Your task to perform on an android device: read, delete, or share a saved page in the chrome app Image 0: 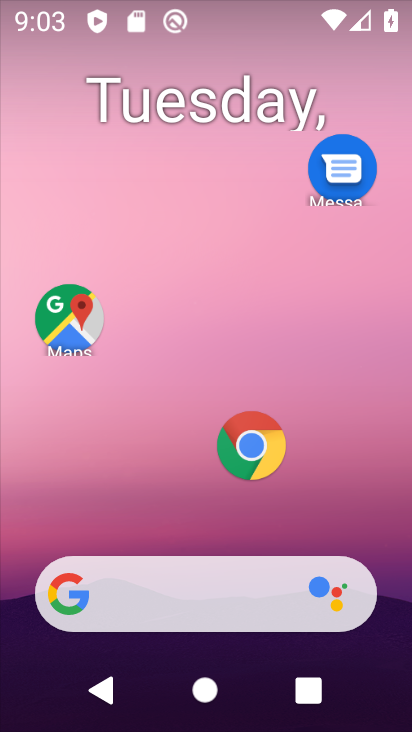
Step 0: click (275, 442)
Your task to perform on an android device: read, delete, or share a saved page in the chrome app Image 1: 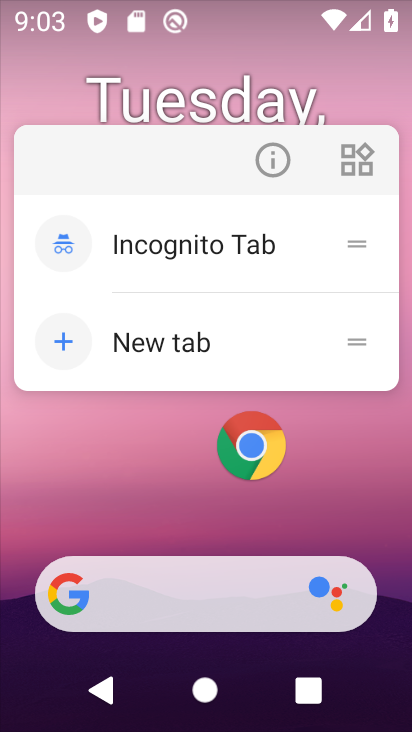
Step 1: click (257, 447)
Your task to perform on an android device: read, delete, or share a saved page in the chrome app Image 2: 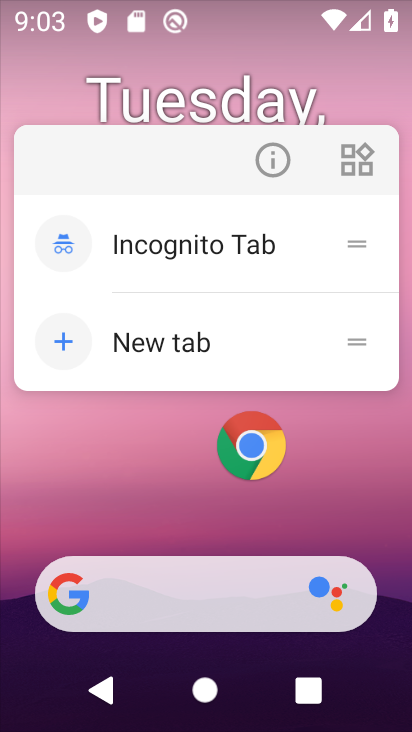
Step 2: click (257, 447)
Your task to perform on an android device: read, delete, or share a saved page in the chrome app Image 3: 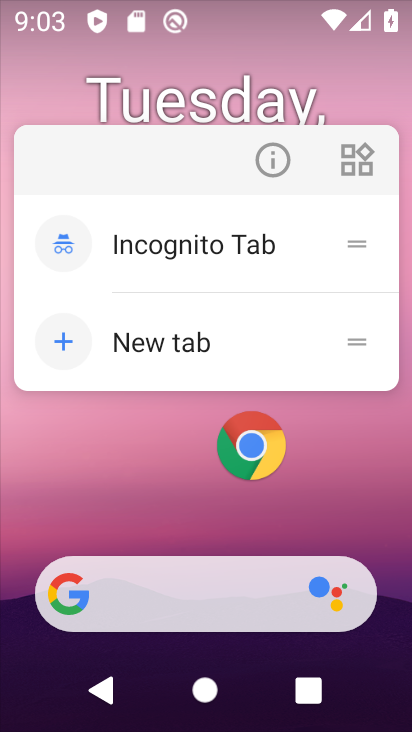
Step 3: click (256, 442)
Your task to perform on an android device: read, delete, or share a saved page in the chrome app Image 4: 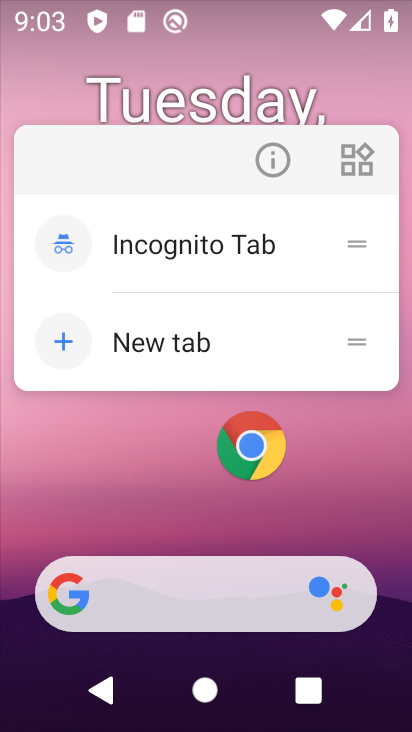
Step 4: click (256, 442)
Your task to perform on an android device: read, delete, or share a saved page in the chrome app Image 5: 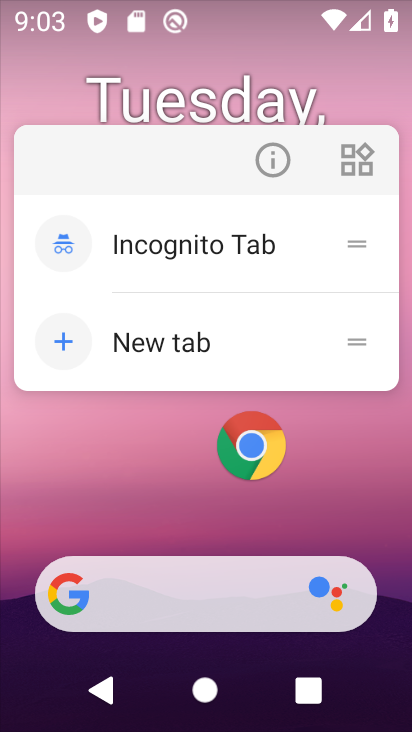
Step 5: click (272, 444)
Your task to perform on an android device: read, delete, or share a saved page in the chrome app Image 6: 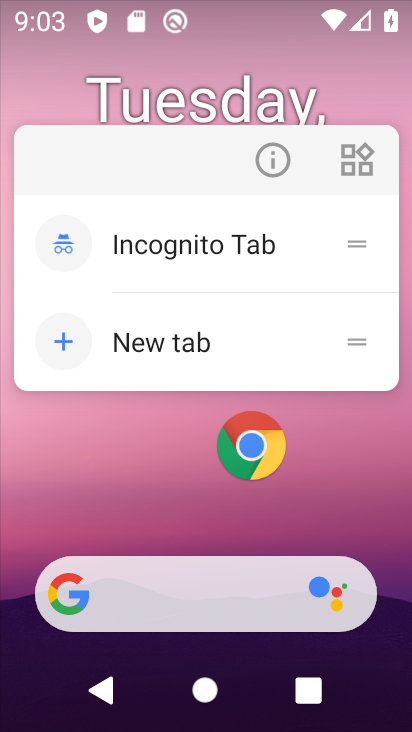
Step 6: click (257, 440)
Your task to perform on an android device: read, delete, or share a saved page in the chrome app Image 7: 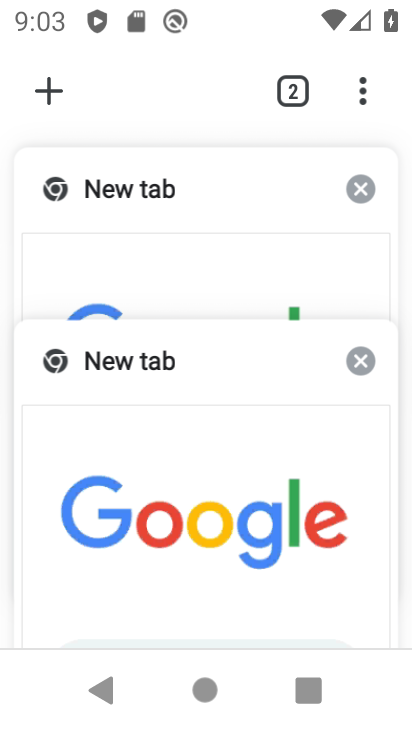
Step 7: click (211, 454)
Your task to perform on an android device: read, delete, or share a saved page in the chrome app Image 8: 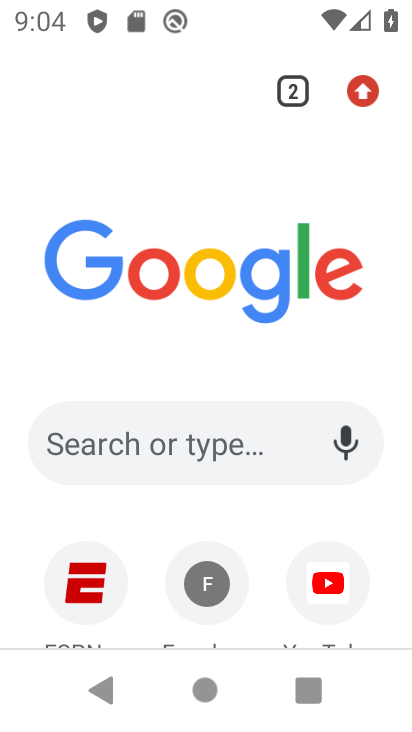
Step 8: click (200, 601)
Your task to perform on an android device: read, delete, or share a saved page in the chrome app Image 9: 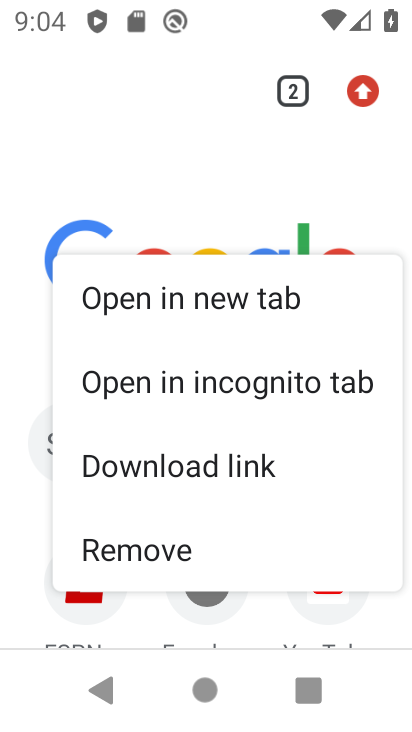
Step 9: click (191, 547)
Your task to perform on an android device: read, delete, or share a saved page in the chrome app Image 10: 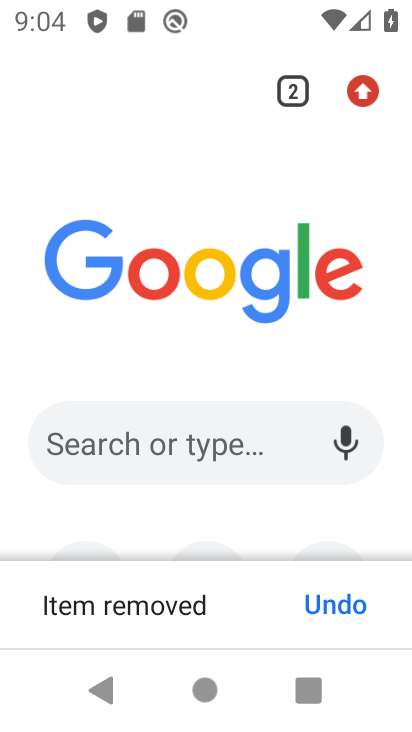
Step 10: task complete